Your task to perform on an android device: Open Wikipedia Image 0: 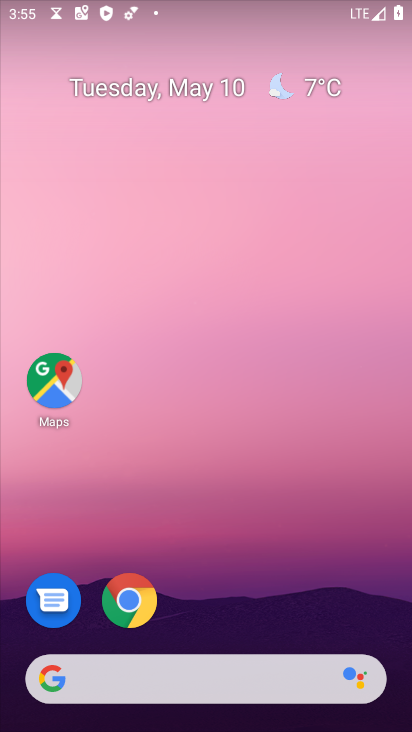
Step 0: drag from (237, 627) to (407, 50)
Your task to perform on an android device: Open Wikipedia Image 1: 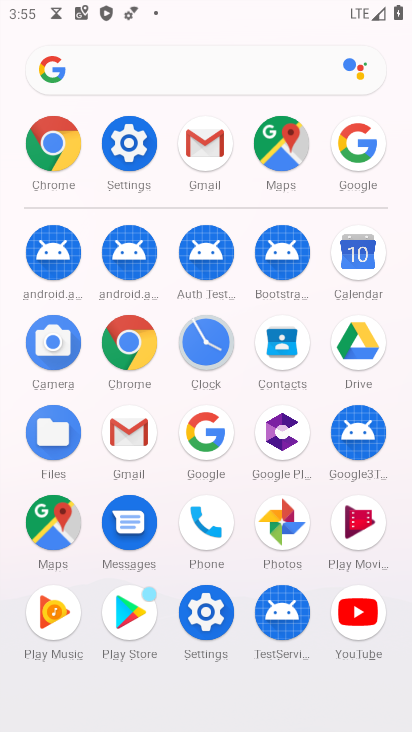
Step 1: click (58, 123)
Your task to perform on an android device: Open Wikipedia Image 2: 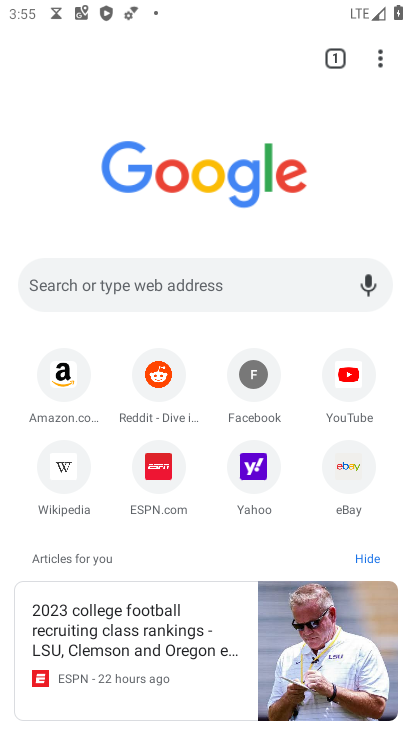
Step 2: click (52, 479)
Your task to perform on an android device: Open Wikipedia Image 3: 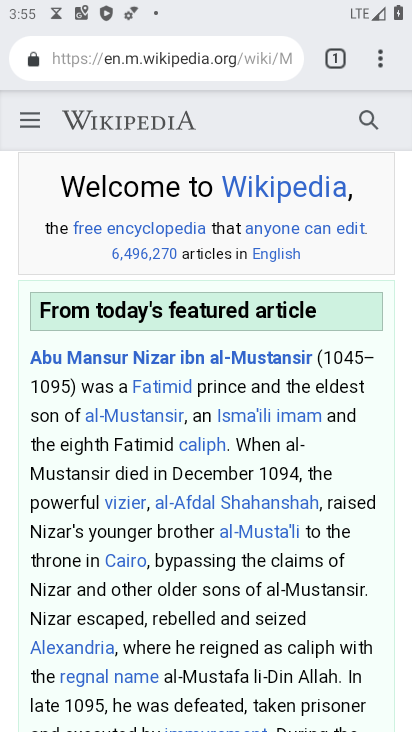
Step 3: task complete